Your task to perform on an android device: move an email to a new category in the gmail app Image 0: 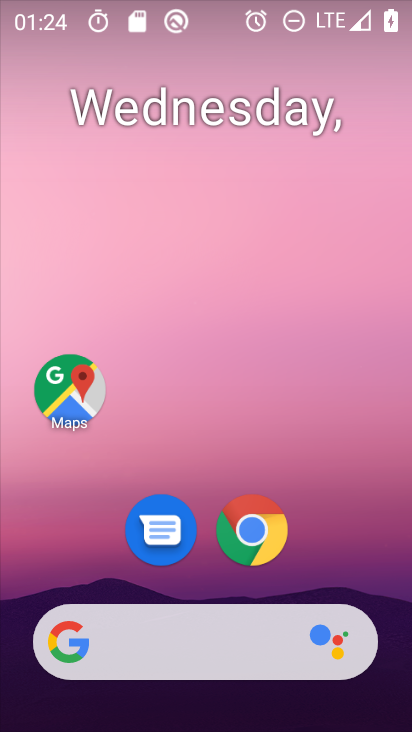
Step 0: drag from (128, 609) to (371, 50)
Your task to perform on an android device: move an email to a new category in the gmail app Image 1: 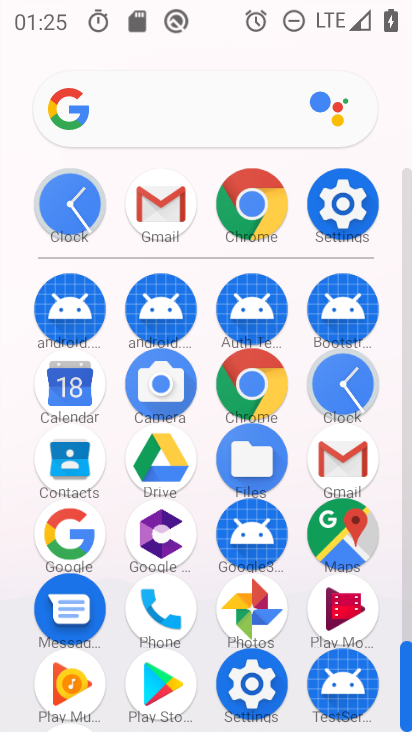
Step 1: click (341, 447)
Your task to perform on an android device: move an email to a new category in the gmail app Image 2: 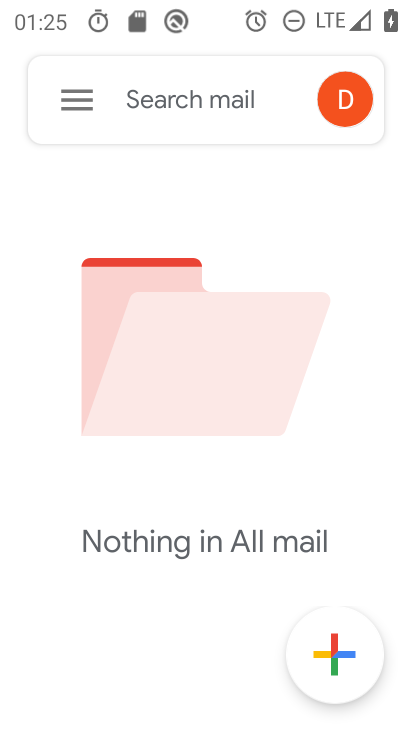
Step 2: task complete